Your task to perform on an android device: toggle wifi Image 0: 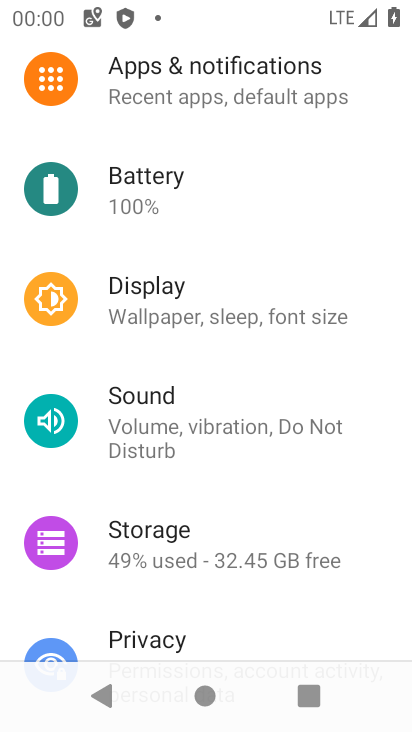
Step 0: drag from (190, 19) to (119, 687)
Your task to perform on an android device: toggle wifi Image 1: 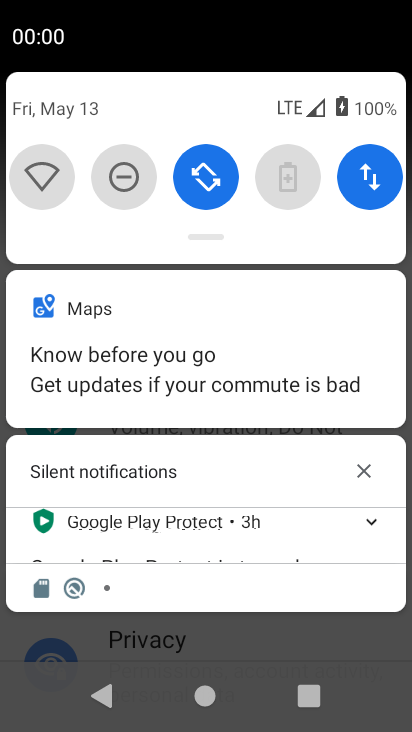
Step 1: click (52, 200)
Your task to perform on an android device: toggle wifi Image 2: 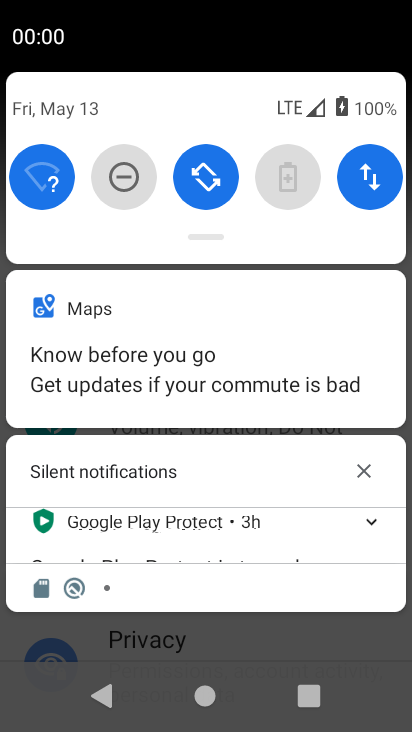
Step 2: click (52, 200)
Your task to perform on an android device: toggle wifi Image 3: 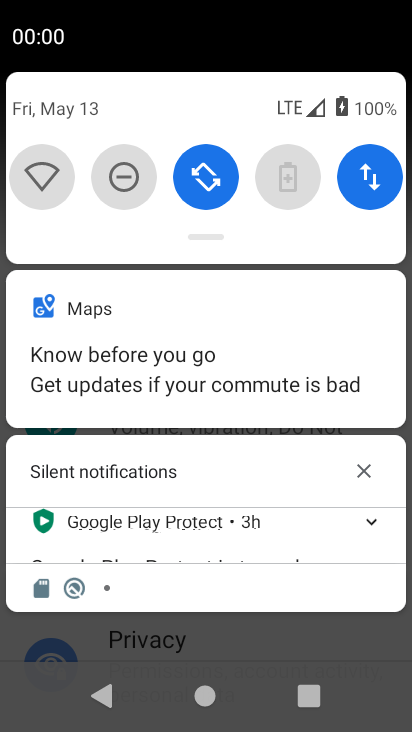
Step 3: click (52, 200)
Your task to perform on an android device: toggle wifi Image 4: 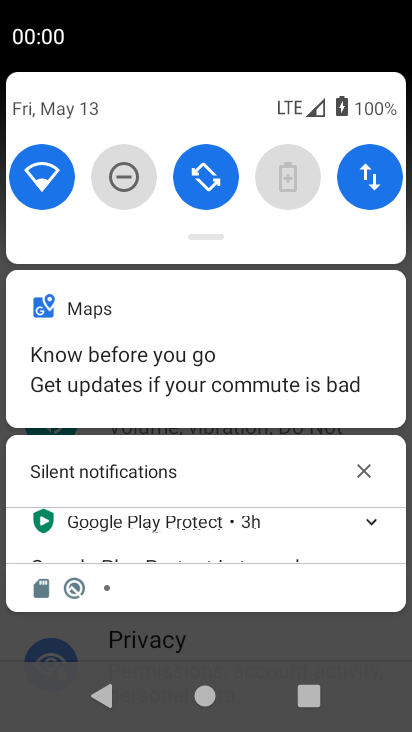
Step 4: click (52, 200)
Your task to perform on an android device: toggle wifi Image 5: 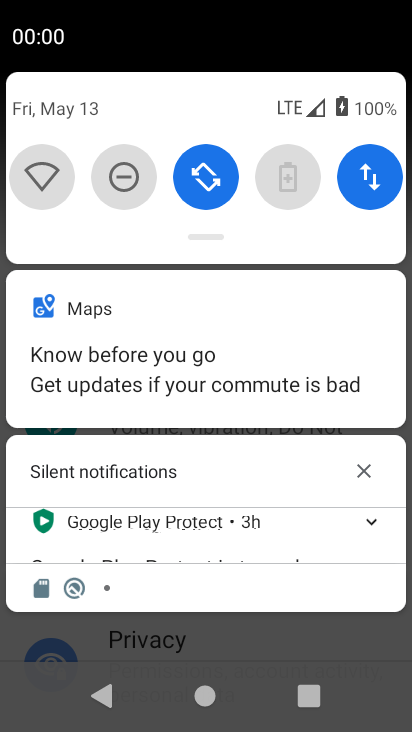
Step 5: task complete